Your task to perform on an android device: toggle notification dots Image 0: 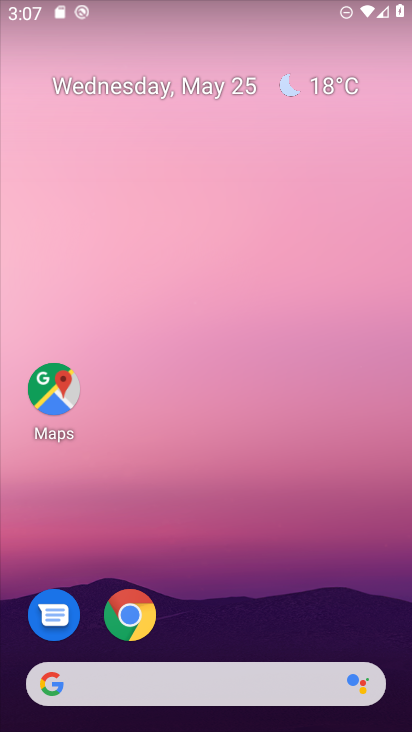
Step 0: drag from (225, 632) to (321, 18)
Your task to perform on an android device: toggle notification dots Image 1: 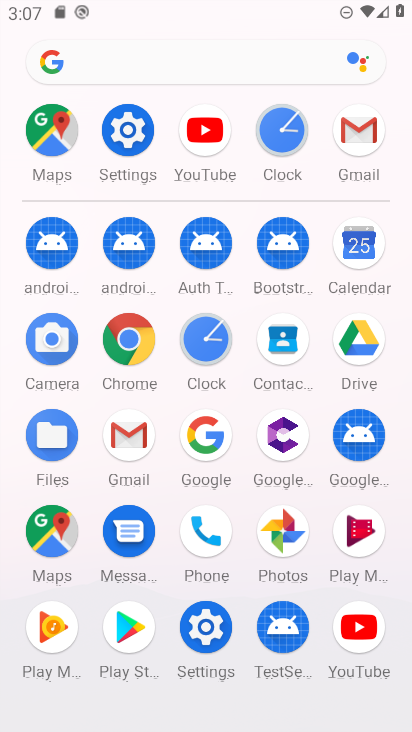
Step 1: click (131, 132)
Your task to perform on an android device: toggle notification dots Image 2: 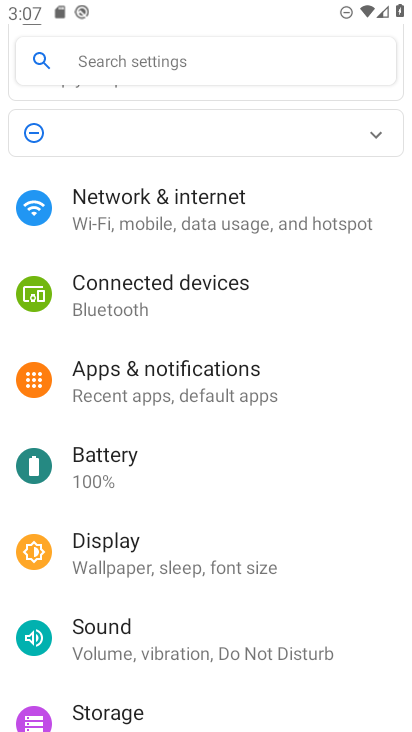
Step 2: click (251, 383)
Your task to perform on an android device: toggle notification dots Image 3: 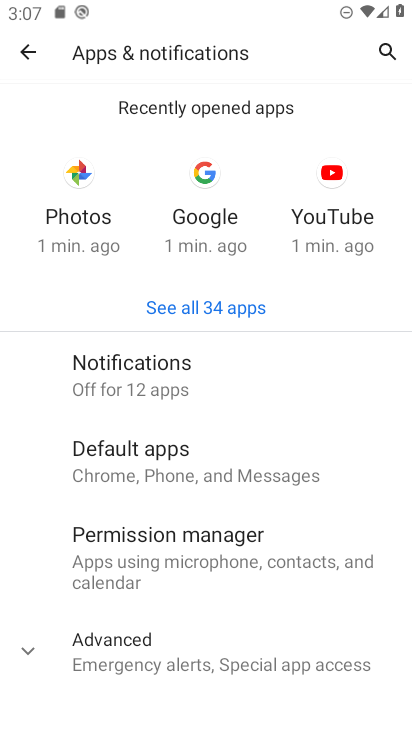
Step 3: click (221, 375)
Your task to perform on an android device: toggle notification dots Image 4: 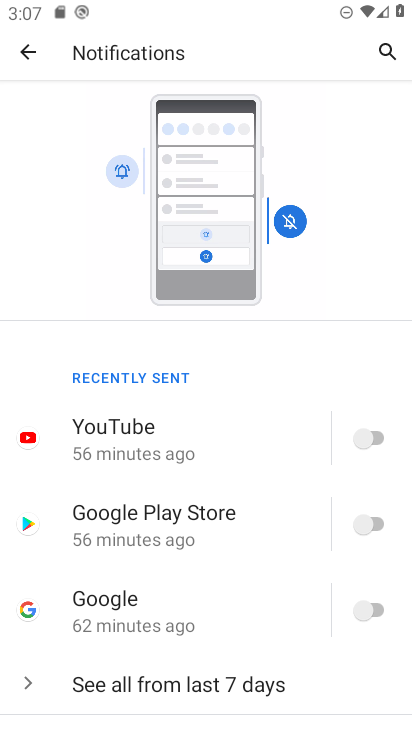
Step 4: drag from (206, 604) to (259, 169)
Your task to perform on an android device: toggle notification dots Image 5: 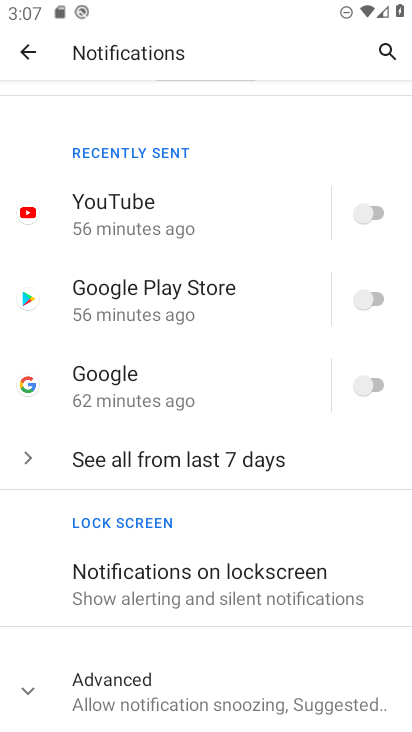
Step 5: click (28, 680)
Your task to perform on an android device: toggle notification dots Image 6: 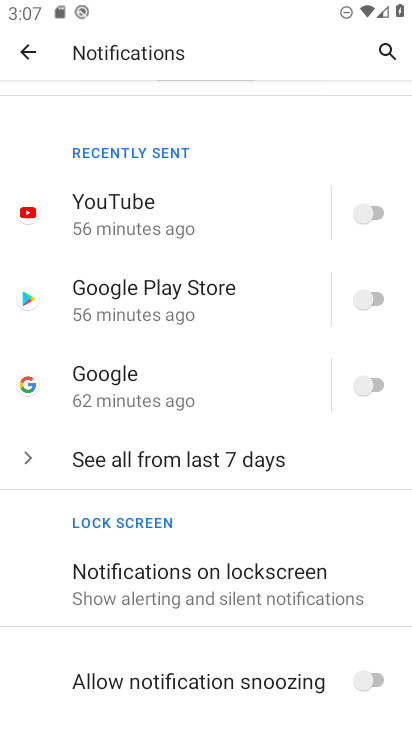
Step 6: drag from (216, 619) to (296, 191)
Your task to perform on an android device: toggle notification dots Image 7: 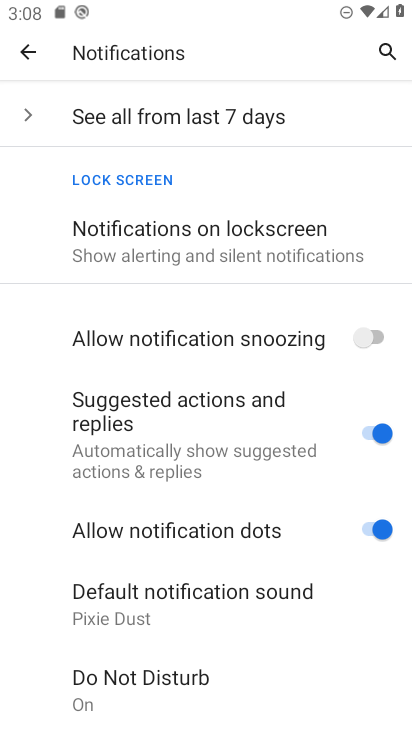
Step 7: click (364, 513)
Your task to perform on an android device: toggle notification dots Image 8: 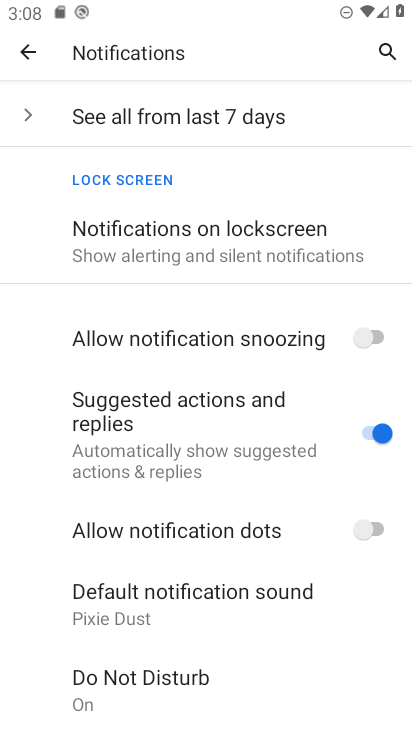
Step 8: task complete